Your task to perform on an android device: change keyboard looks Image 0: 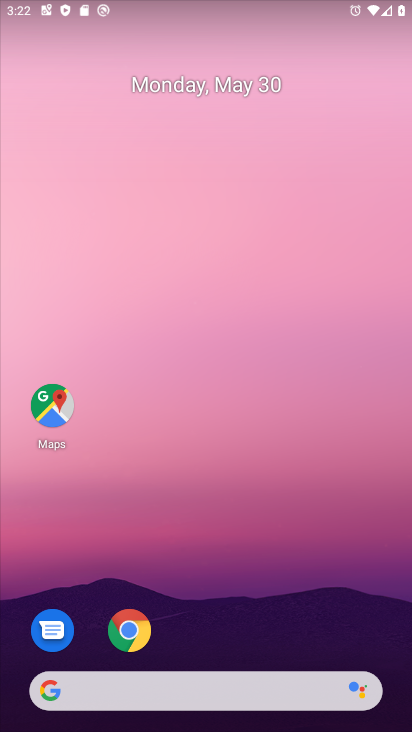
Step 0: drag from (226, 643) to (274, 278)
Your task to perform on an android device: change keyboard looks Image 1: 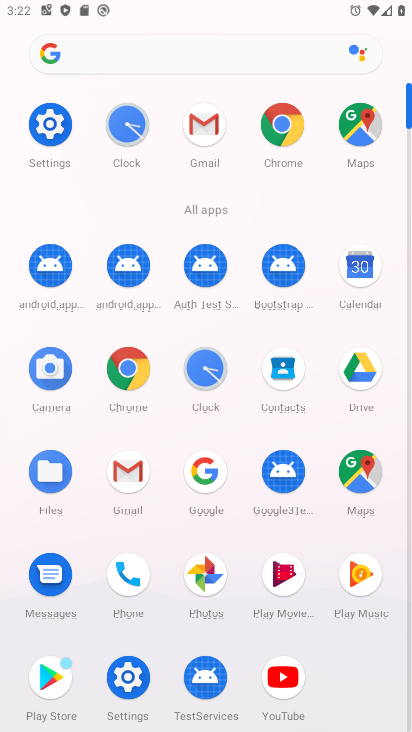
Step 1: click (50, 123)
Your task to perform on an android device: change keyboard looks Image 2: 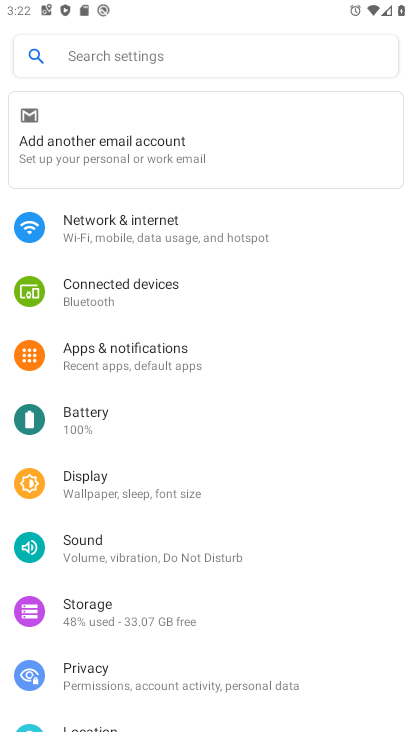
Step 2: drag from (279, 611) to (281, 12)
Your task to perform on an android device: change keyboard looks Image 3: 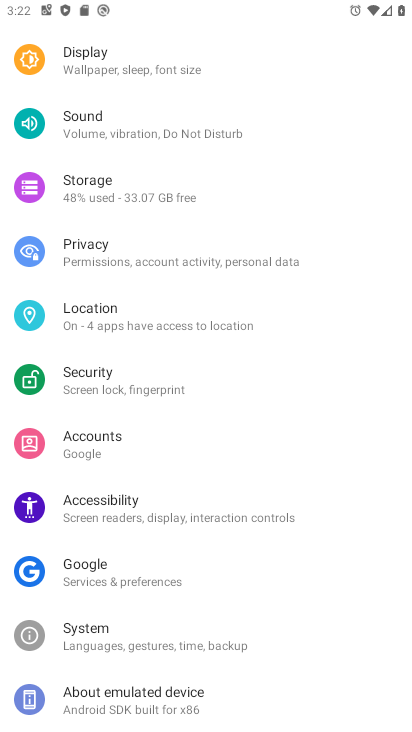
Step 3: click (131, 632)
Your task to perform on an android device: change keyboard looks Image 4: 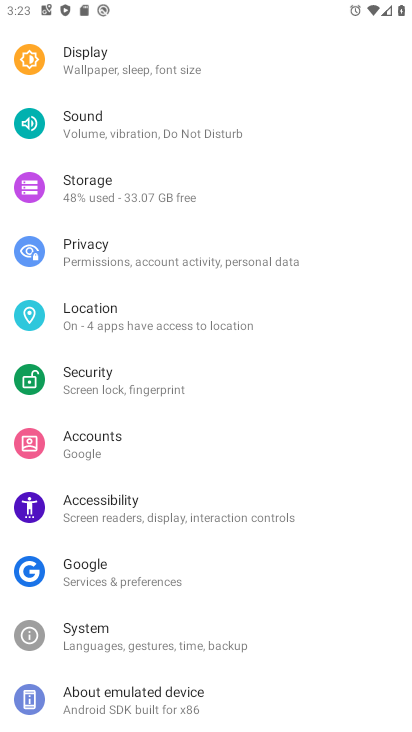
Step 4: click (92, 642)
Your task to perform on an android device: change keyboard looks Image 5: 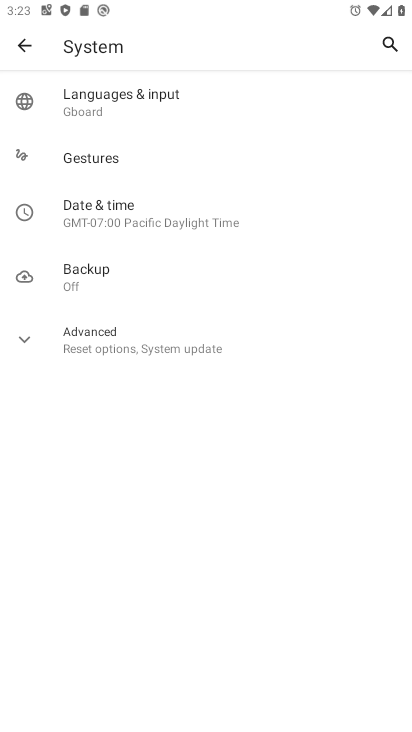
Step 5: click (153, 88)
Your task to perform on an android device: change keyboard looks Image 6: 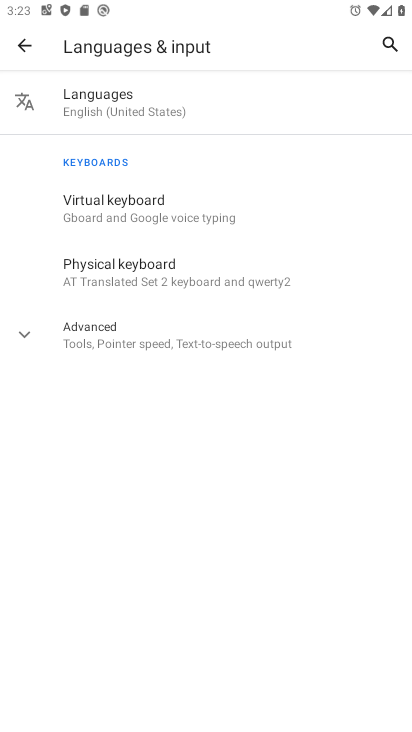
Step 6: click (183, 226)
Your task to perform on an android device: change keyboard looks Image 7: 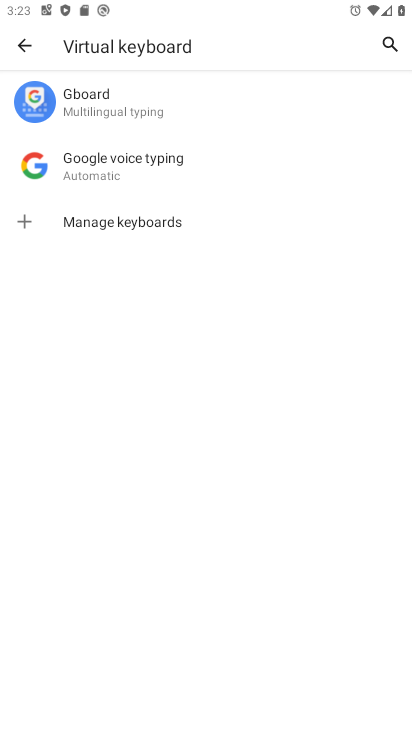
Step 7: click (157, 81)
Your task to perform on an android device: change keyboard looks Image 8: 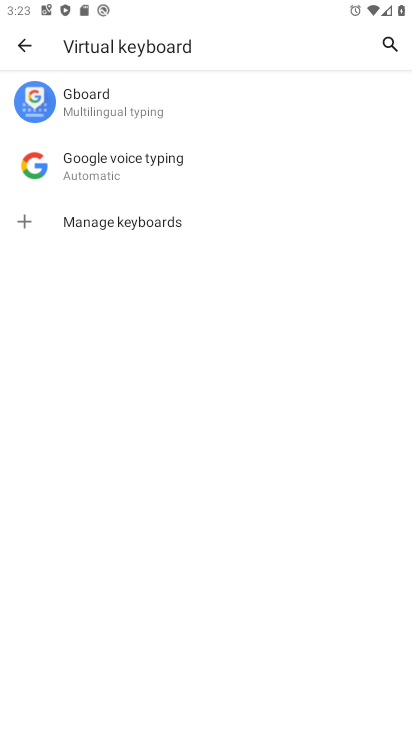
Step 8: click (157, 162)
Your task to perform on an android device: change keyboard looks Image 9: 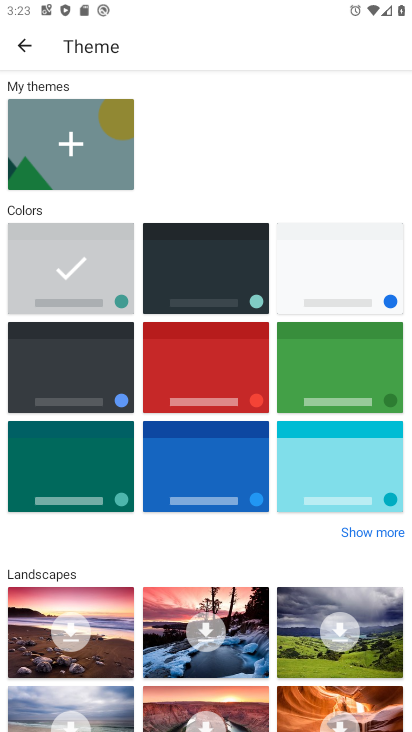
Step 9: click (193, 344)
Your task to perform on an android device: change keyboard looks Image 10: 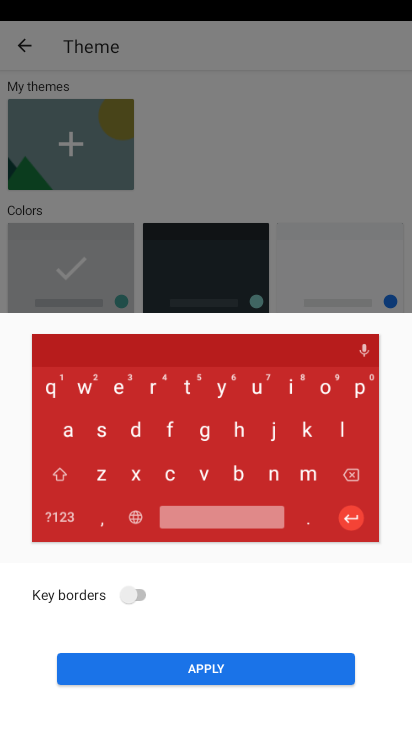
Step 10: click (214, 630)
Your task to perform on an android device: change keyboard looks Image 11: 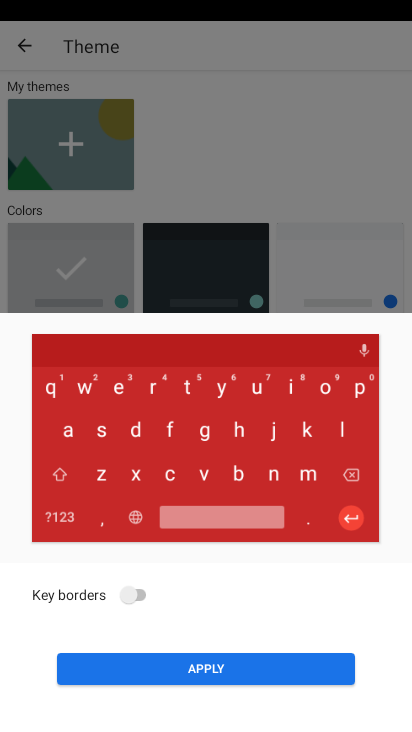
Step 11: click (221, 683)
Your task to perform on an android device: change keyboard looks Image 12: 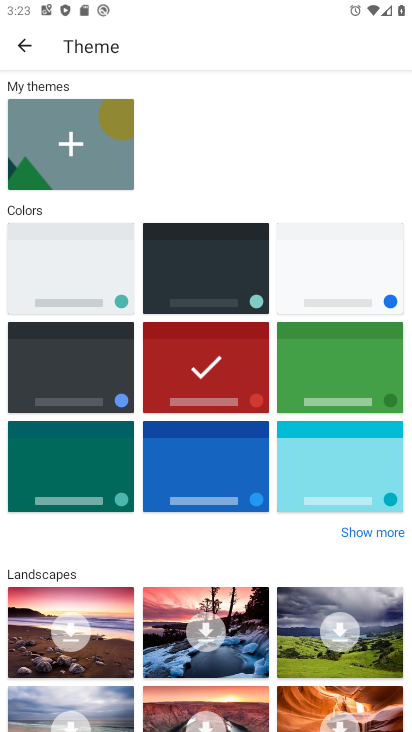
Step 12: task complete